Your task to perform on an android device: Search for the best-rated coffee table on Crate & Barrel Image 0: 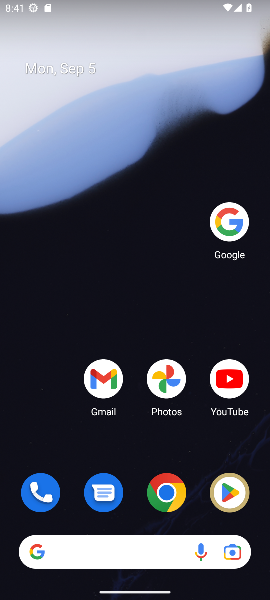
Step 0: click (223, 223)
Your task to perform on an android device: Search for the best-rated coffee table on Crate & Barrel Image 1: 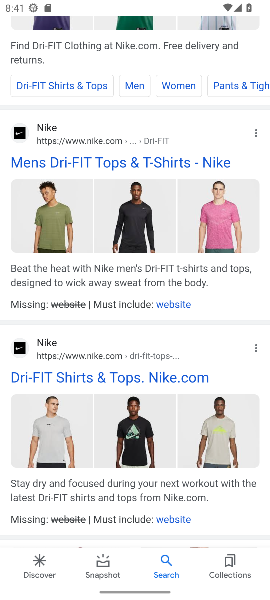
Step 1: drag from (147, 93) to (139, 481)
Your task to perform on an android device: Search for the best-rated coffee table on Crate & Barrel Image 2: 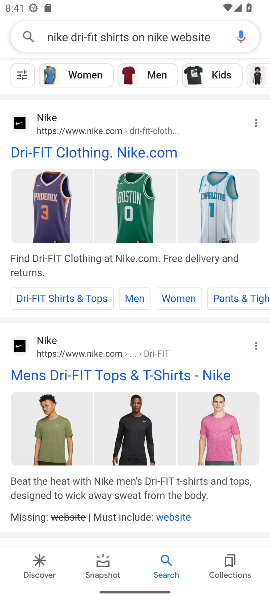
Step 2: click (178, 32)
Your task to perform on an android device: Search for the best-rated coffee table on Crate & Barrel Image 3: 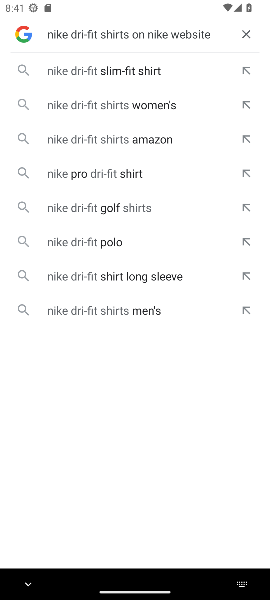
Step 3: click (238, 26)
Your task to perform on an android device: Search for the best-rated coffee table on Crate & Barrel Image 4: 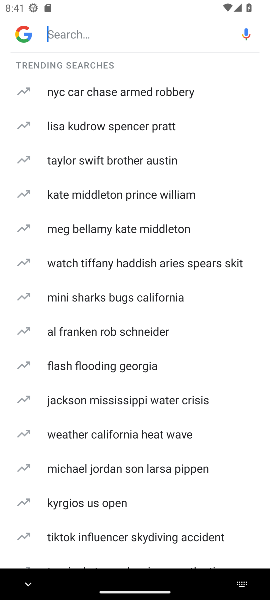
Step 4: click (151, 33)
Your task to perform on an android device: Search for the best-rated coffee table on Crate & Barrel Image 5: 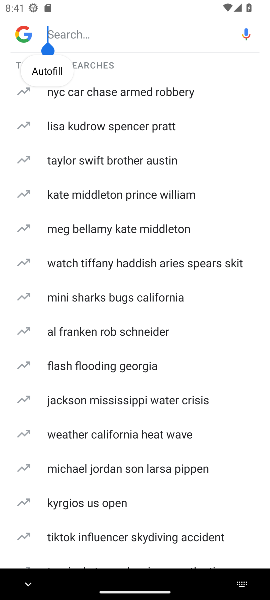
Step 5: type " the best-rated coffee table on Crate & Barrel "
Your task to perform on an android device: Search for the best-rated coffee table on Crate & Barrel Image 6: 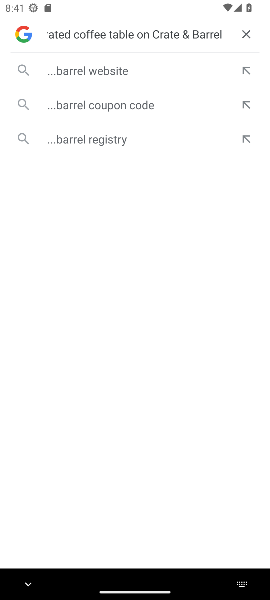
Step 6: click (119, 72)
Your task to perform on an android device: Search for the best-rated coffee table on Crate & Barrel Image 7: 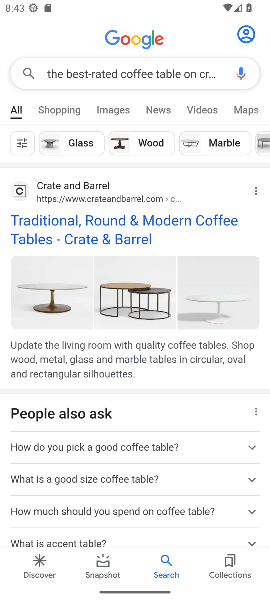
Step 7: task complete